Your task to perform on an android device: see sites visited before in the chrome app Image 0: 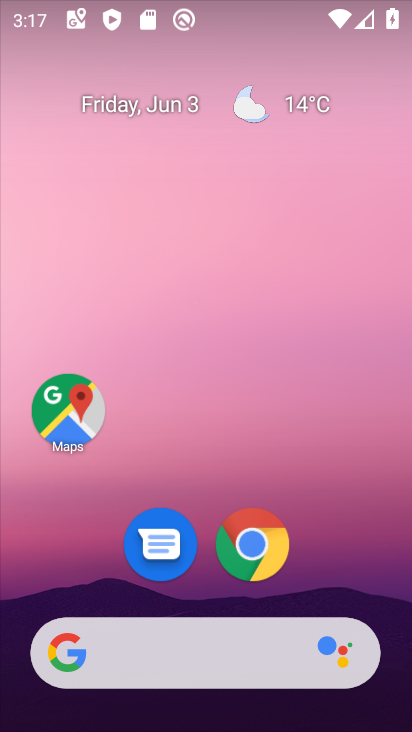
Step 0: click (253, 545)
Your task to perform on an android device: see sites visited before in the chrome app Image 1: 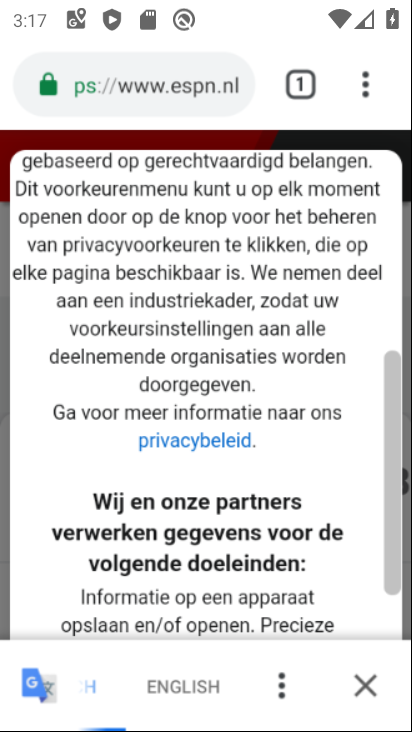
Step 1: click (362, 96)
Your task to perform on an android device: see sites visited before in the chrome app Image 2: 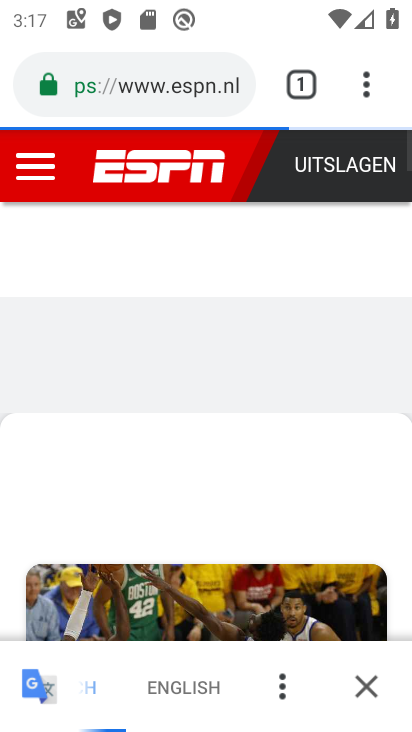
Step 2: click (365, 94)
Your task to perform on an android device: see sites visited before in the chrome app Image 3: 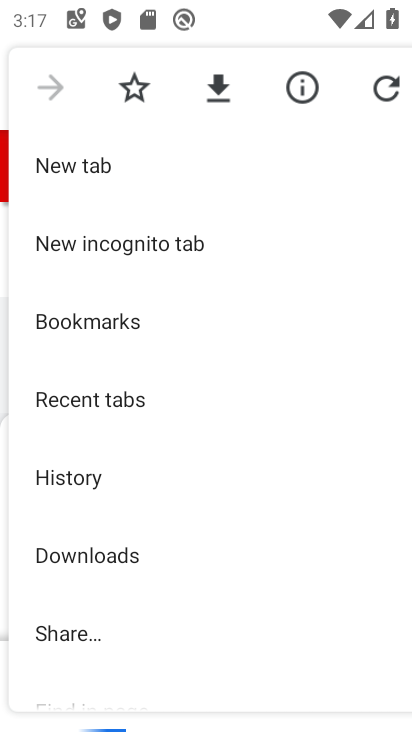
Step 3: click (71, 390)
Your task to perform on an android device: see sites visited before in the chrome app Image 4: 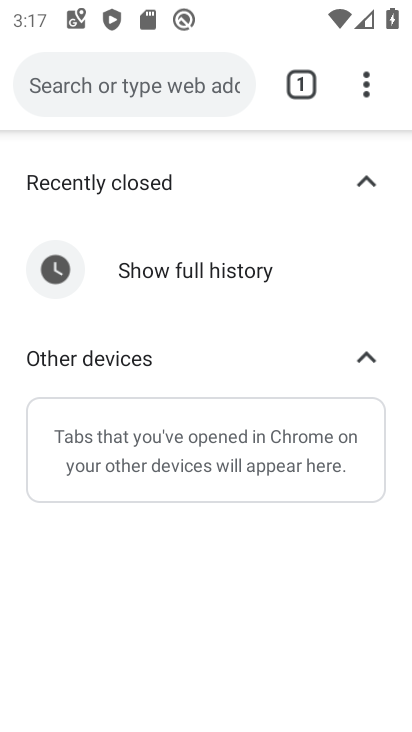
Step 4: task complete